Your task to perform on an android device: Go to location settings Image 0: 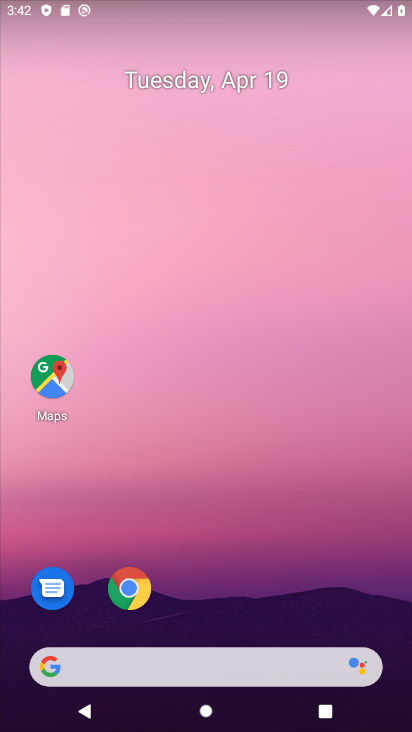
Step 0: drag from (215, 578) to (208, 126)
Your task to perform on an android device: Go to location settings Image 1: 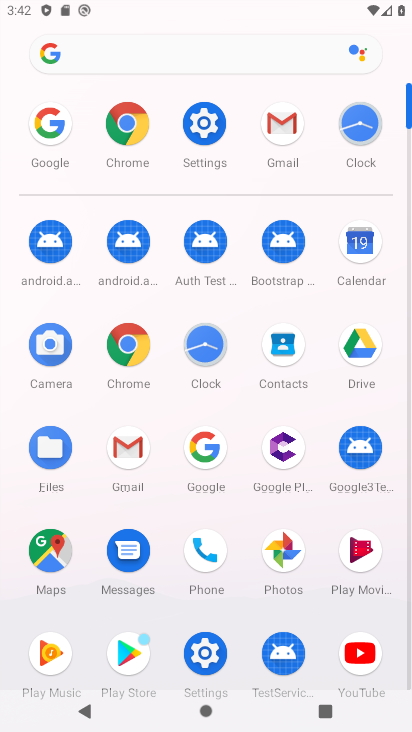
Step 1: click (195, 124)
Your task to perform on an android device: Go to location settings Image 2: 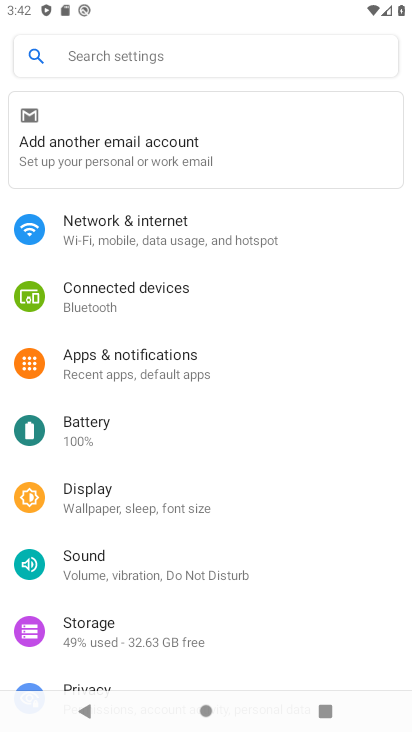
Step 2: drag from (162, 640) to (156, 265)
Your task to perform on an android device: Go to location settings Image 3: 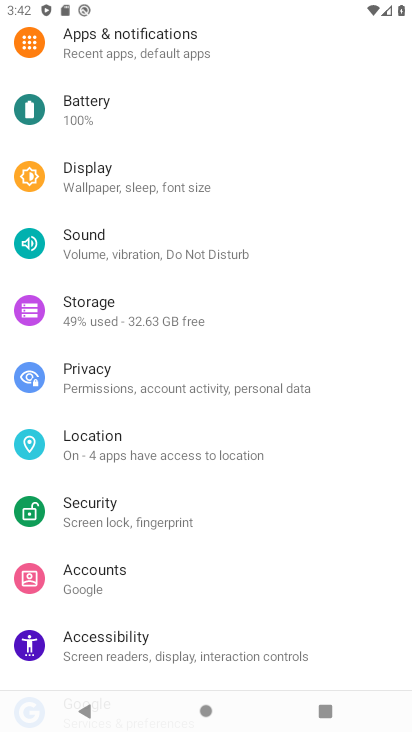
Step 3: click (124, 452)
Your task to perform on an android device: Go to location settings Image 4: 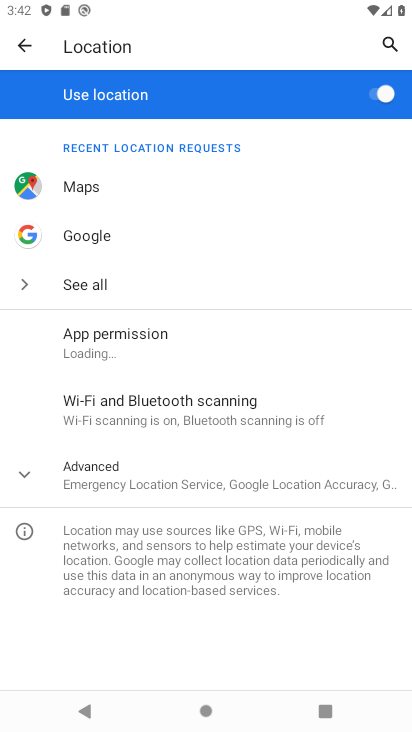
Step 4: task complete